Your task to perform on an android device: Open Google Maps and go to "Timeline" Image 0: 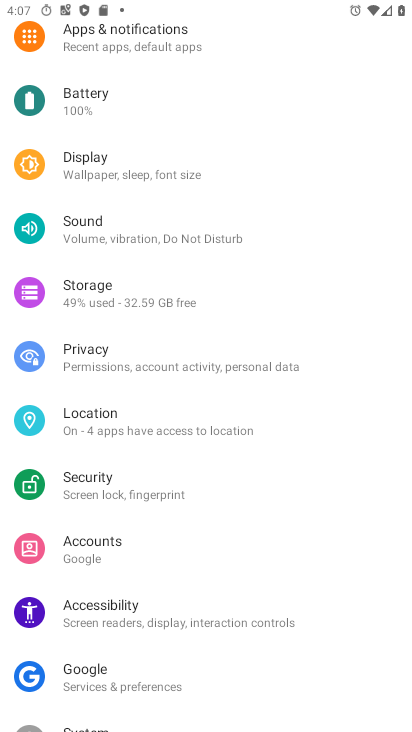
Step 0: press home button
Your task to perform on an android device: Open Google Maps and go to "Timeline" Image 1: 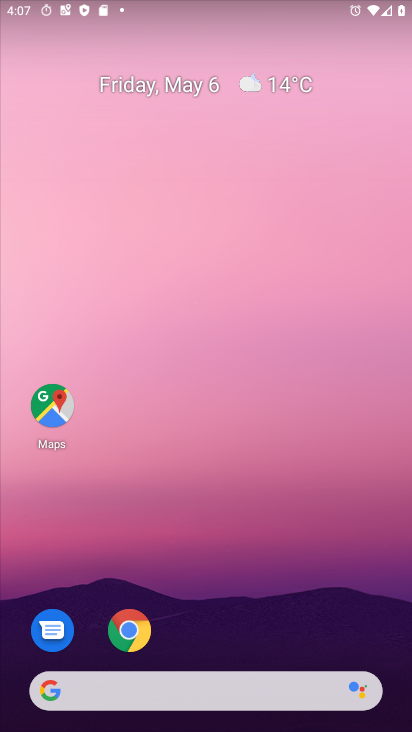
Step 1: click (44, 416)
Your task to perform on an android device: Open Google Maps and go to "Timeline" Image 2: 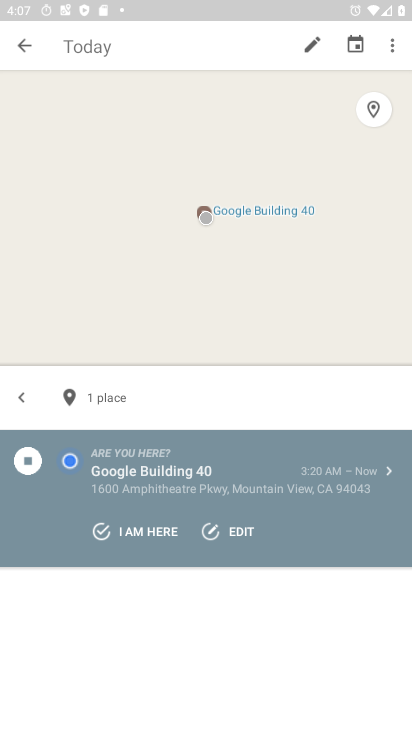
Step 2: click (34, 59)
Your task to perform on an android device: Open Google Maps and go to "Timeline" Image 3: 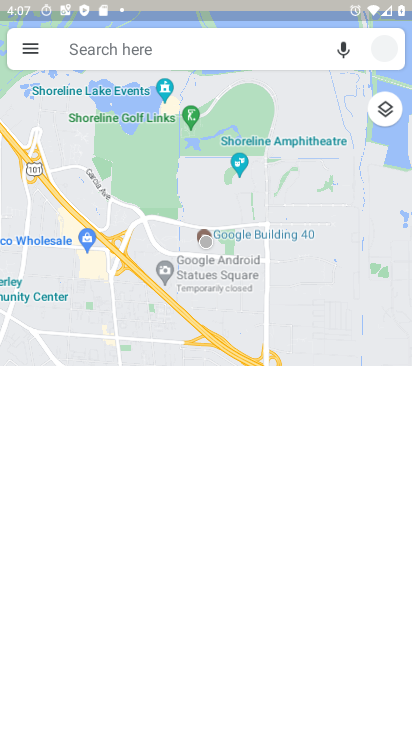
Step 3: click (34, 59)
Your task to perform on an android device: Open Google Maps and go to "Timeline" Image 4: 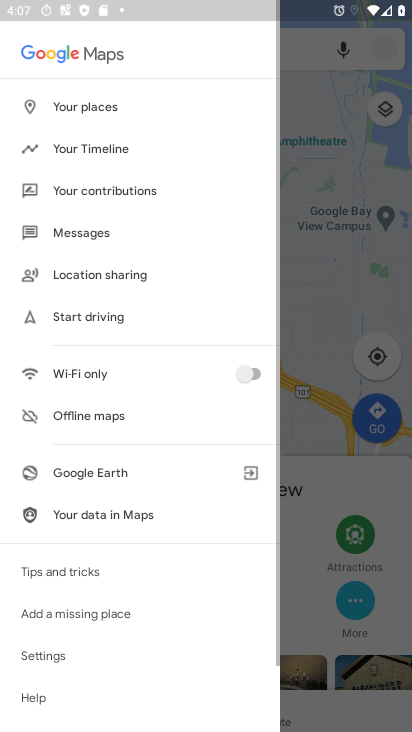
Step 4: click (34, 59)
Your task to perform on an android device: Open Google Maps and go to "Timeline" Image 5: 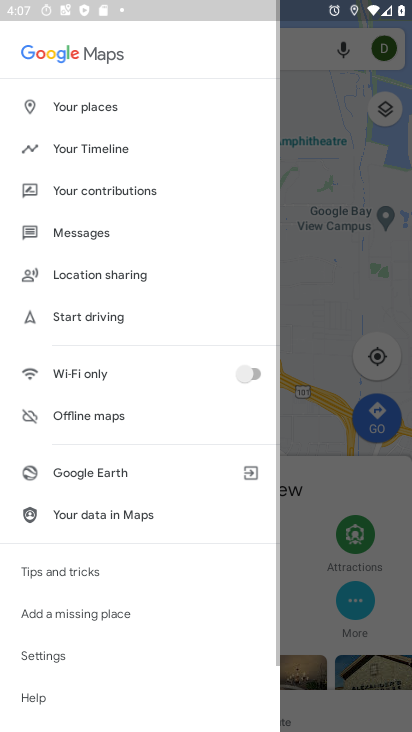
Step 5: click (95, 147)
Your task to perform on an android device: Open Google Maps and go to "Timeline" Image 6: 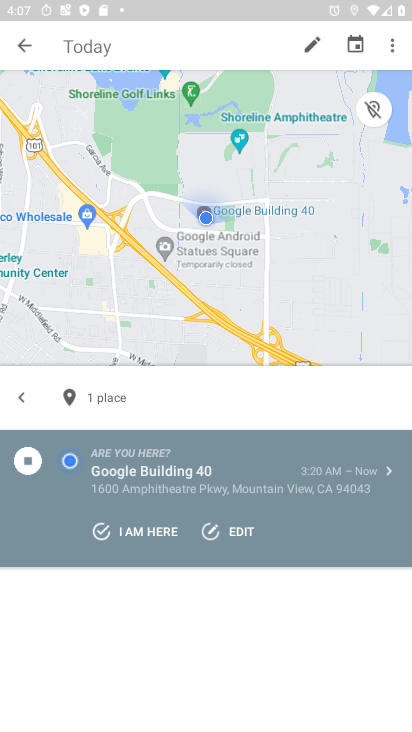
Step 6: task complete